Your task to perform on an android device: Is it going to rain today? Image 0: 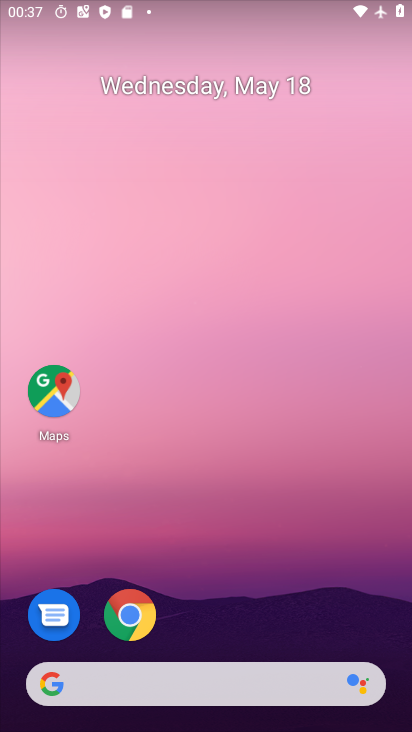
Step 0: drag from (238, 619) to (242, 262)
Your task to perform on an android device: Is it going to rain today? Image 1: 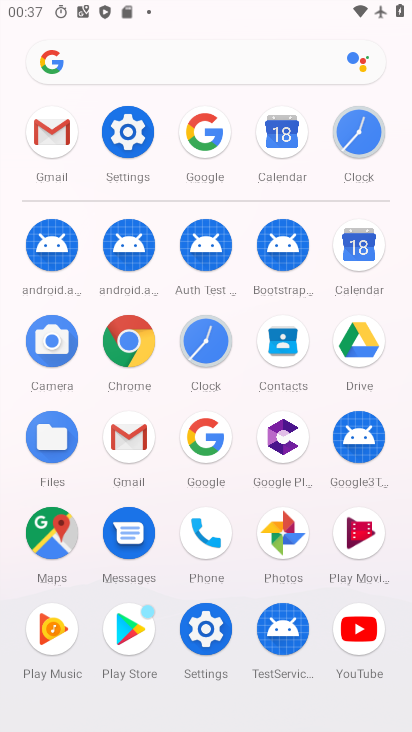
Step 1: click (220, 426)
Your task to perform on an android device: Is it going to rain today? Image 2: 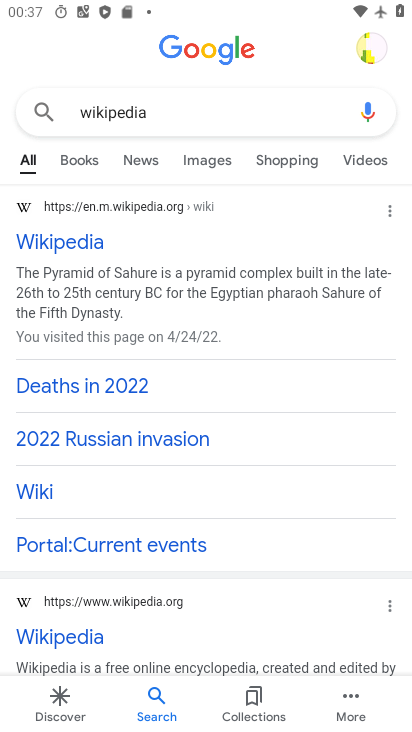
Step 2: click (220, 126)
Your task to perform on an android device: Is it going to rain today? Image 3: 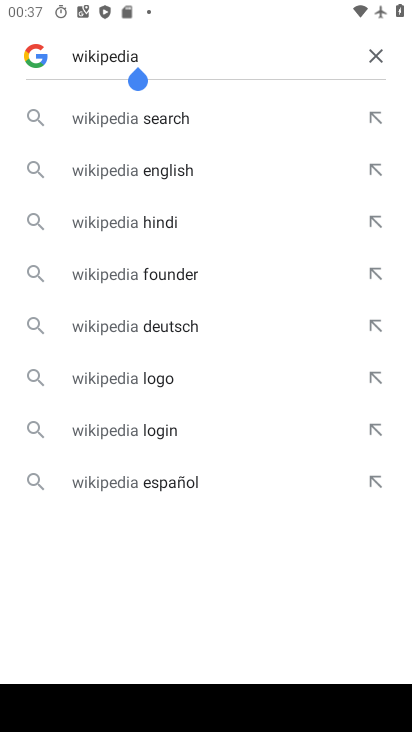
Step 3: click (373, 53)
Your task to perform on an android device: Is it going to rain today? Image 4: 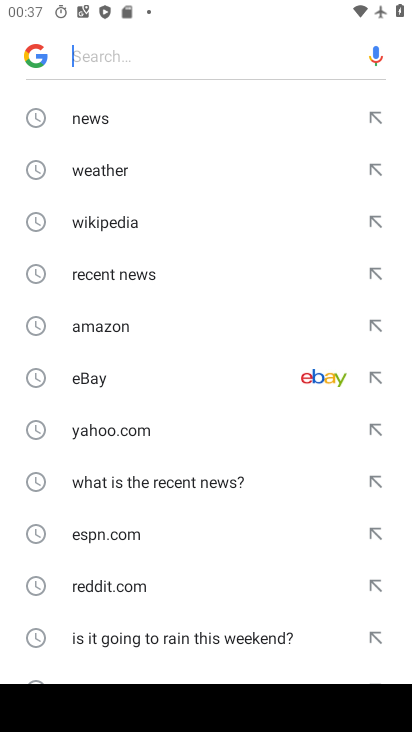
Step 4: click (113, 164)
Your task to perform on an android device: Is it going to rain today? Image 5: 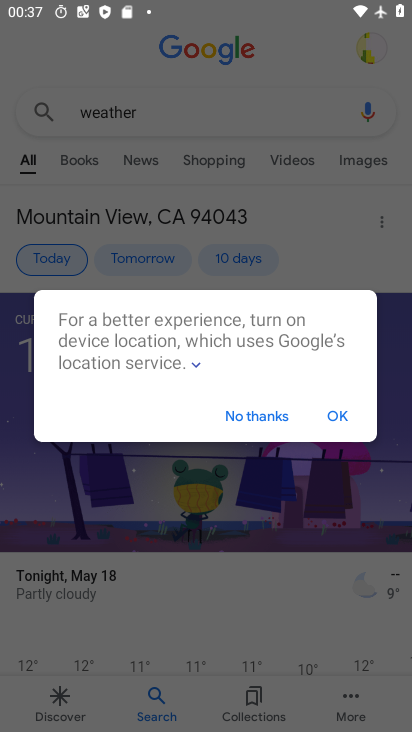
Step 5: click (270, 408)
Your task to perform on an android device: Is it going to rain today? Image 6: 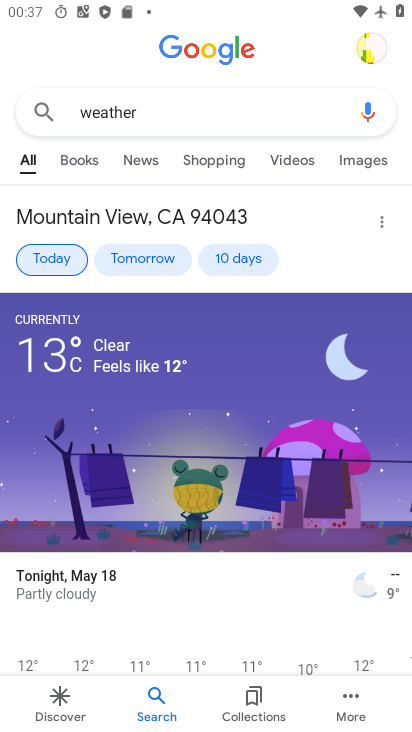
Step 6: task complete